Your task to perform on an android device: check the backup settings in the google photos Image 0: 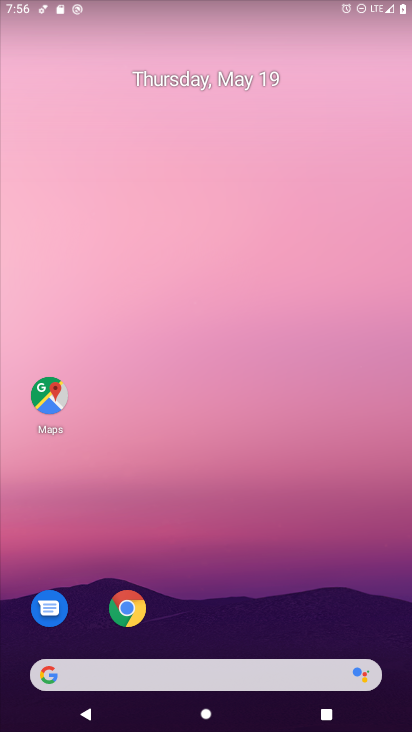
Step 0: drag from (378, 637) to (351, 325)
Your task to perform on an android device: check the backup settings in the google photos Image 1: 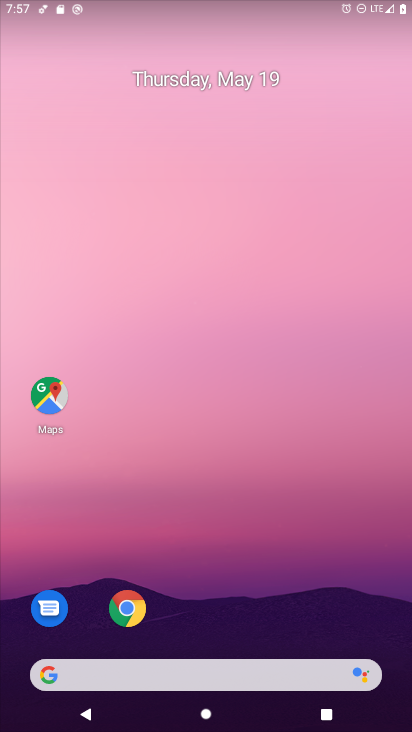
Step 1: drag from (400, 687) to (372, 331)
Your task to perform on an android device: check the backup settings in the google photos Image 2: 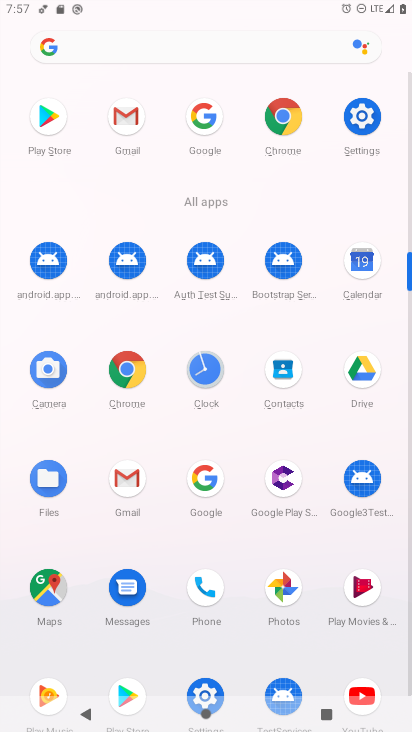
Step 2: click (268, 591)
Your task to perform on an android device: check the backup settings in the google photos Image 3: 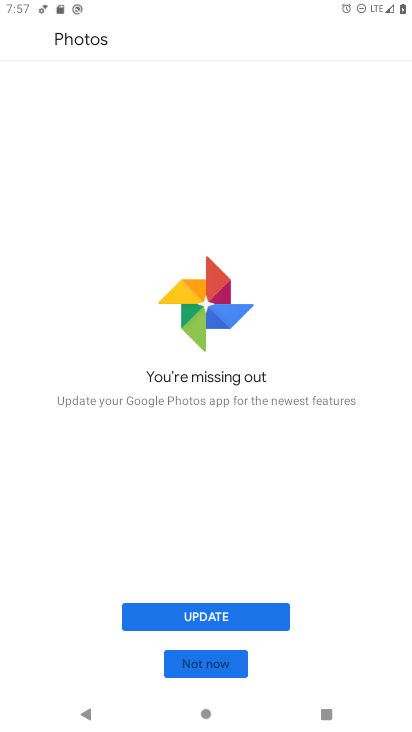
Step 3: click (207, 619)
Your task to perform on an android device: check the backup settings in the google photos Image 4: 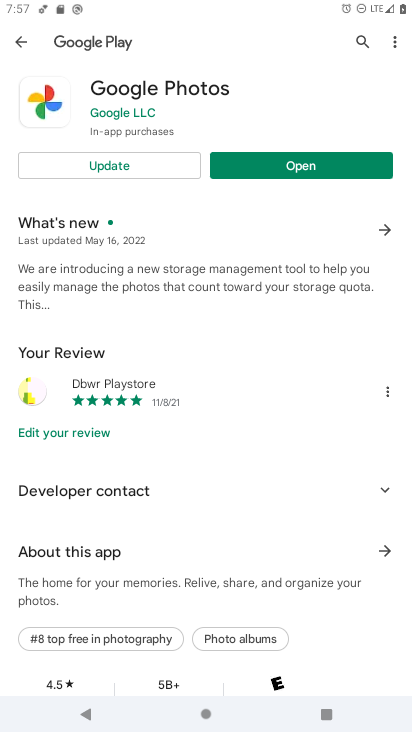
Step 4: click (146, 159)
Your task to perform on an android device: check the backup settings in the google photos Image 5: 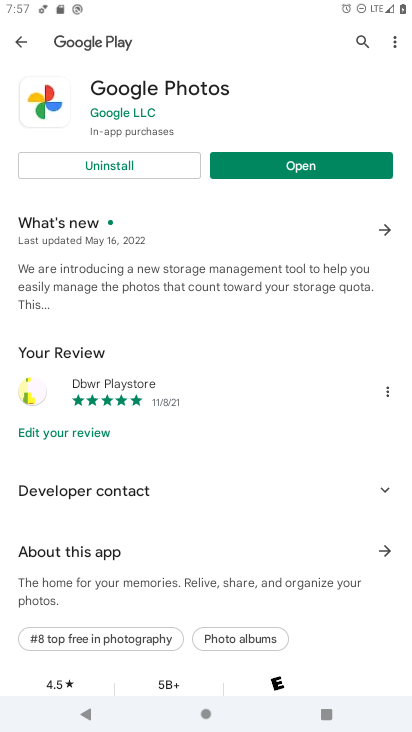
Step 5: click (261, 165)
Your task to perform on an android device: check the backup settings in the google photos Image 6: 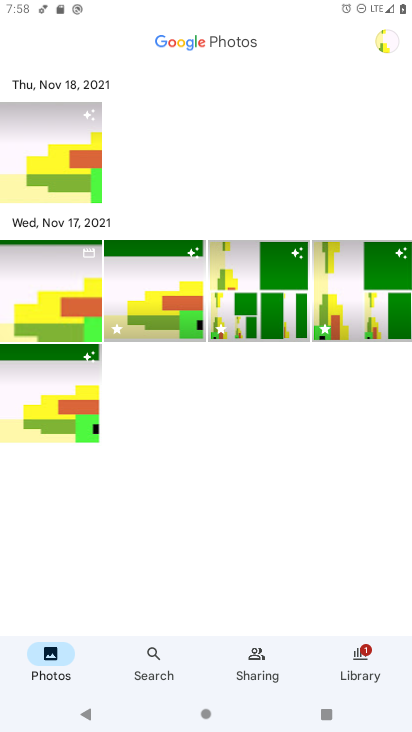
Step 6: task complete